Your task to perform on an android device: Open privacy settings Image 0: 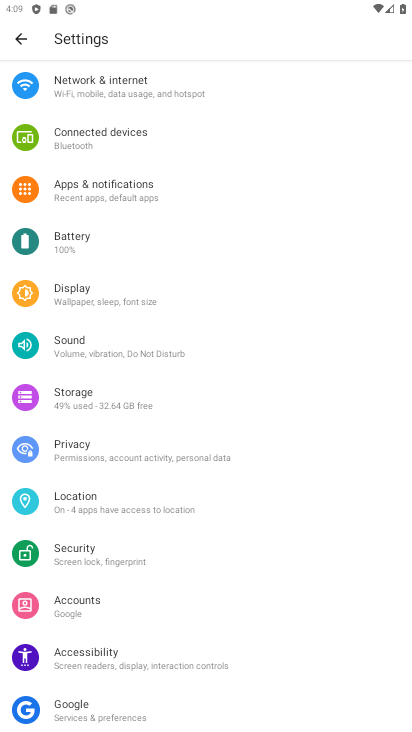
Step 0: click (66, 442)
Your task to perform on an android device: Open privacy settings Image 1: 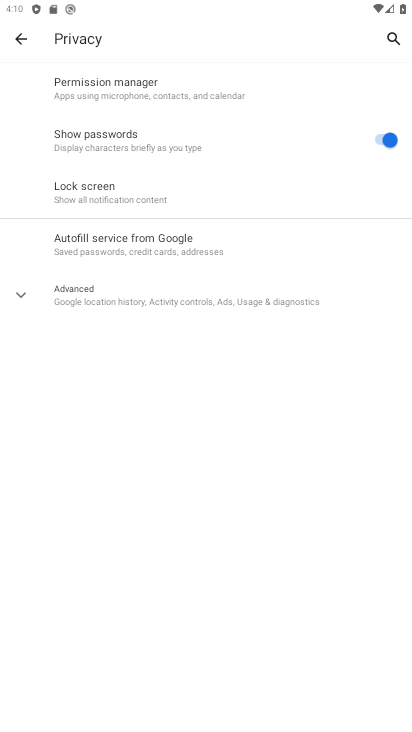
Step 1: task complete